Your task to perform on an android device: Open battery settings Image 0: 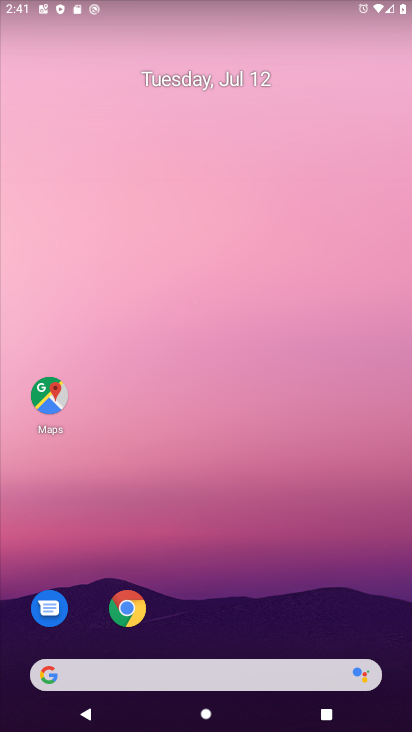
Step 0: drag from (297, 610) to (222, 158)
Your task to perform on an android device: Open battery settings Image 1: 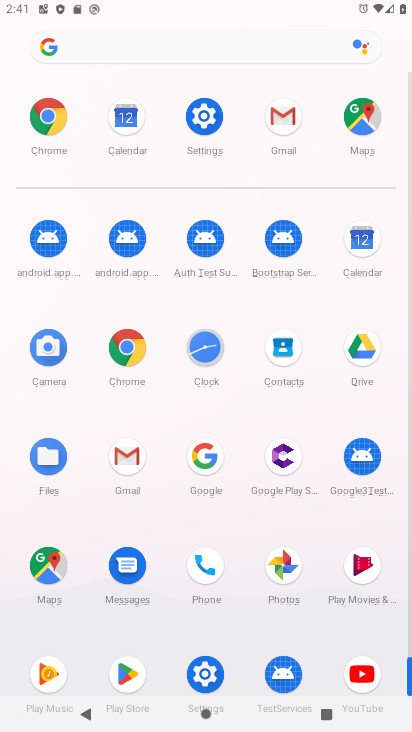
Step 1: click (201, 114)
Your task to perform on an android device: Open battery settings Image 2: 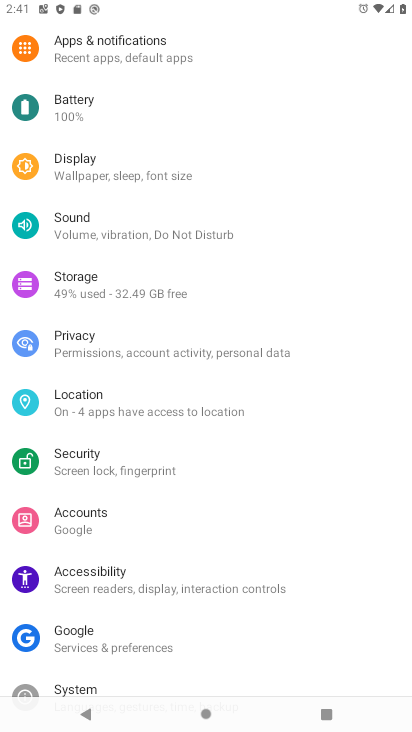
Step 2: click (57, 105)
Your task to perform on an android device: Open battery settings Image 3: 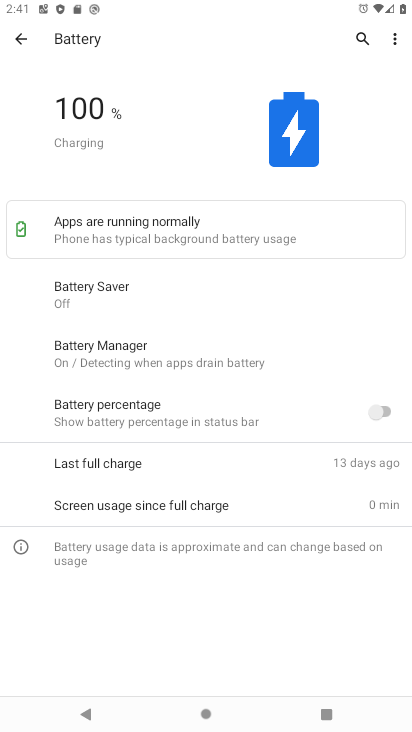
Step 3: task complete